Your task to perform on an android device: turn off notifications settings in the gmail app Image 0: 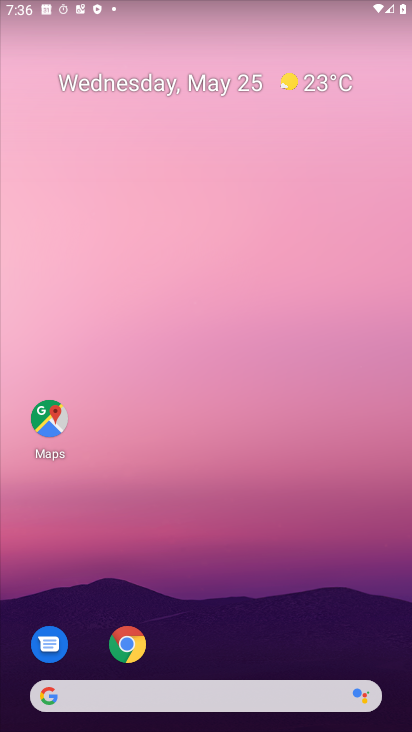
Step 0: press home button
Your task to perform on an android device: turn off notifications settings in the gmail app Image 1: 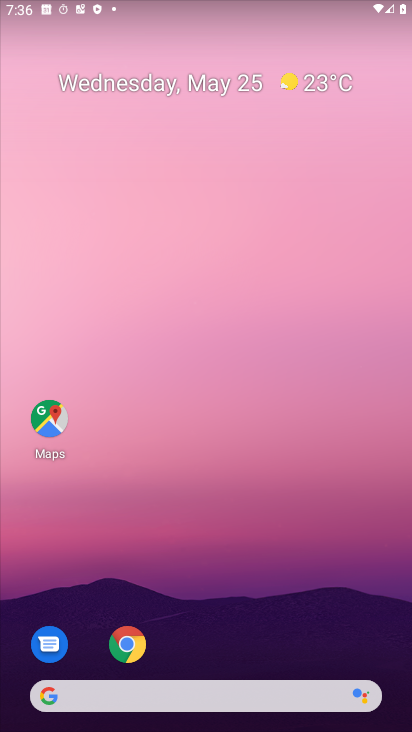
Step 1: drag from (283, 661) to (268, 64)
Your task to perform on an android device: turn off notifications settings in the gmail app Image 2: 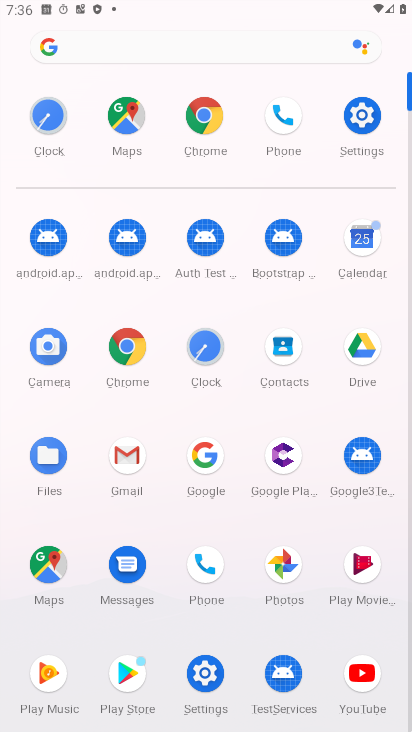
Step 2: click (127, 455)
Your task to perform on an android device: turn off notifications settings in the gmail app Image 3: 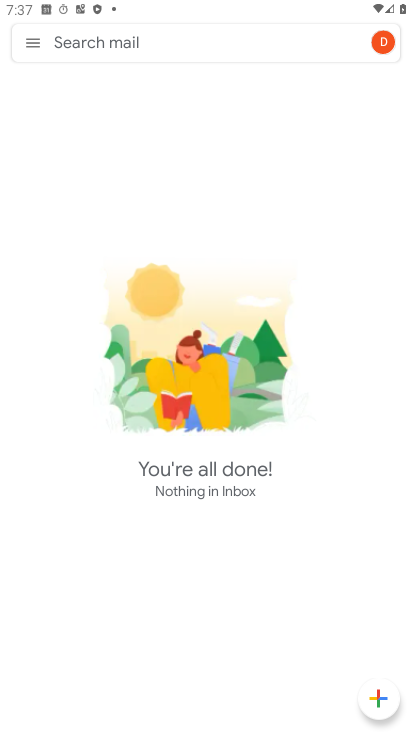
Step 3: click (37, 46)
Your task to perform on an android device: turn off notifications settings in the gmail app Image 4: 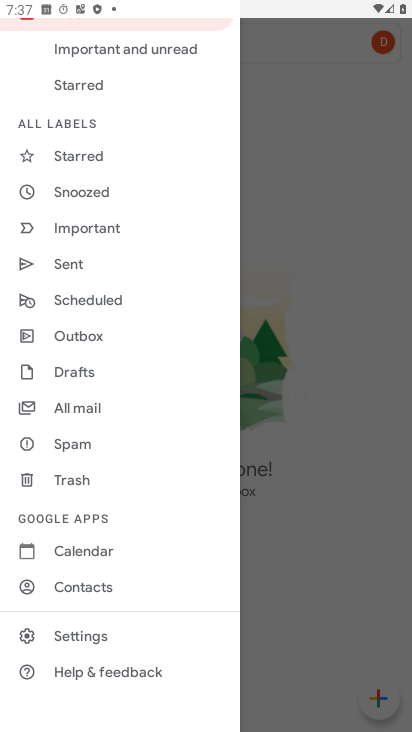
Step 4: click (82, 626)
Your task to perform on an android device: turn off notifications settings in the gmail app Image 5: 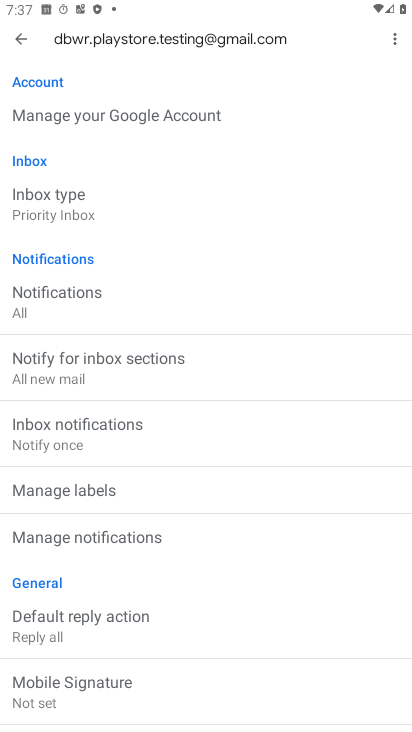
Step 5: click (94, 292)
Your task to perform on an android device: turn off notifications settings in the gmail app Image 6: 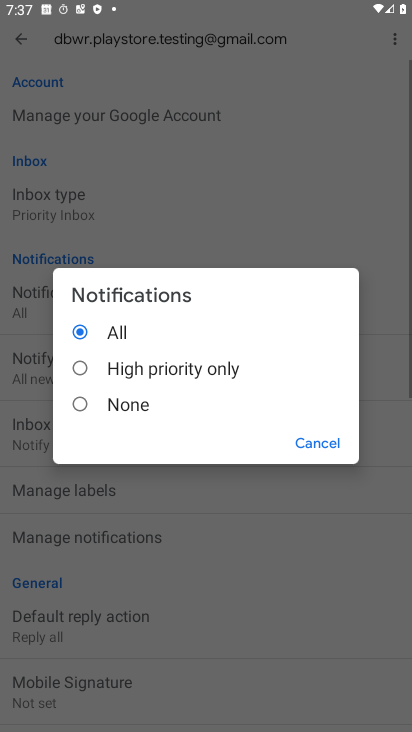
Step 6: click (150, 412)
Your task to perform on an android device: turn off notifications settings in the gmail app Image 7: 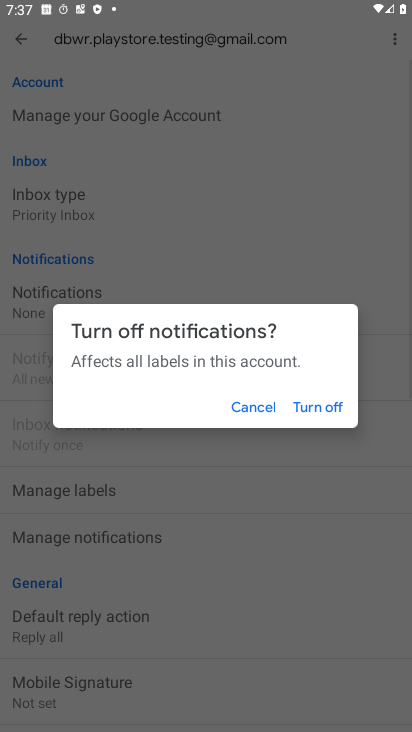
Step 7: task complete